Your task to perform on an android device: clear history in the chrome app Image 0: 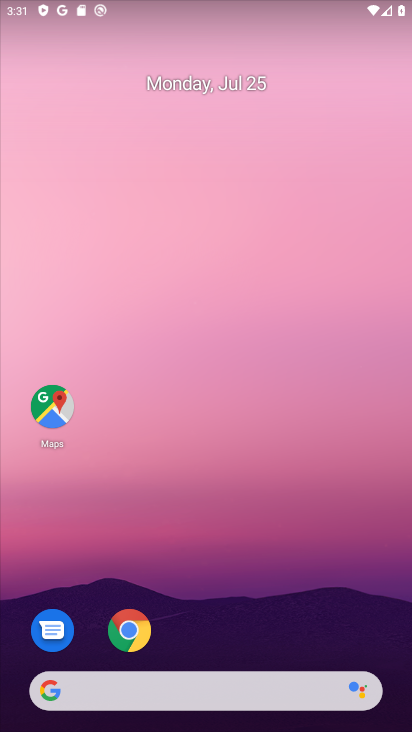
Step 0: click (128, 630)
Your task to perform on an android device: clear history in the chrome app Image 1: 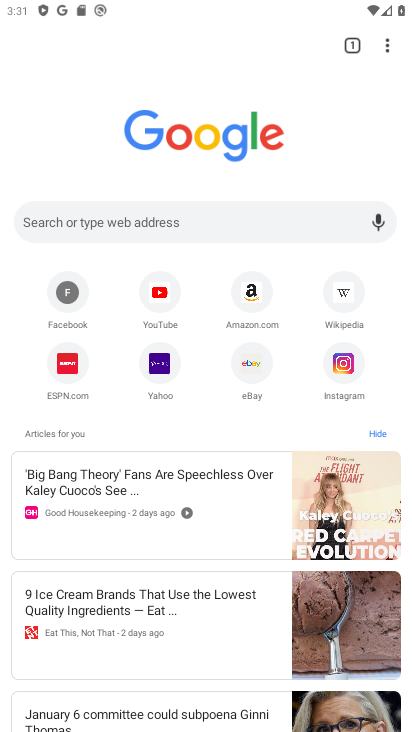
Step 1: click (390, 42)
Your task to perform on an android device: clear history in the chrome app Image 2: 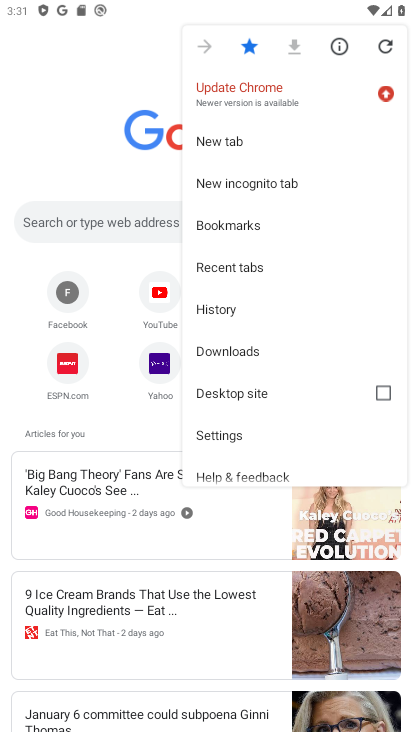
Step 2: click (219, 310)
Your task to perform on an android device: clear history in the chrome app Image 3: 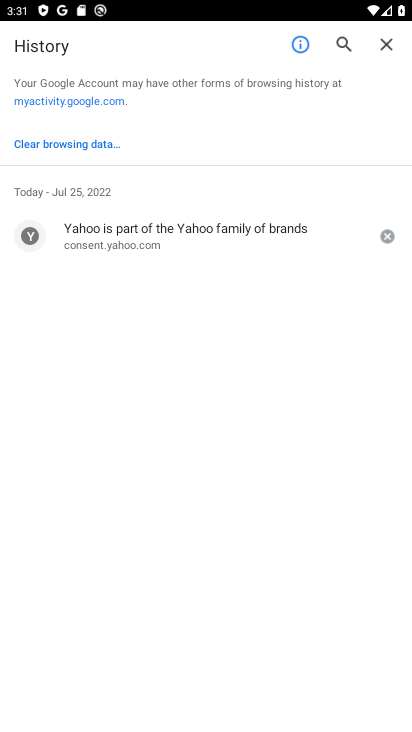
Step 3: click (75, 147)
Your task to perform on an android device: clear history in the chrome app Image 4: 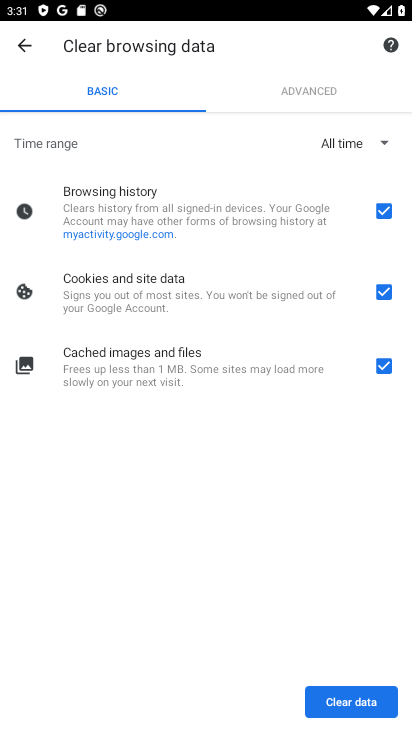
Step 4: click (343, 697)
Your task to perform on an android device: clear history in the chrome app Image 5: 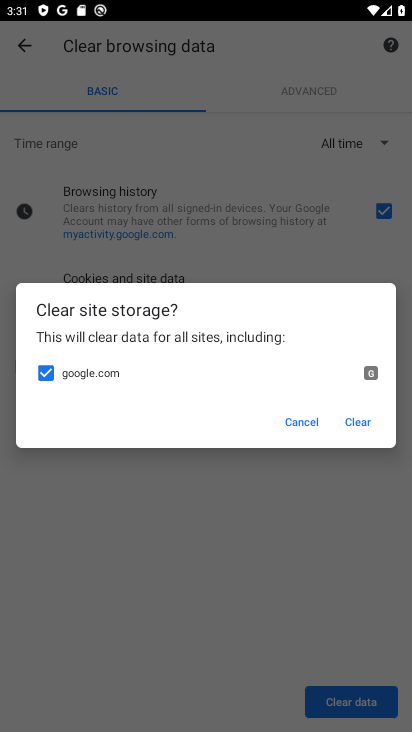
Step 5: click (359, 420)
Your task to perform on an android device: clear history in the chrome app Image 6: 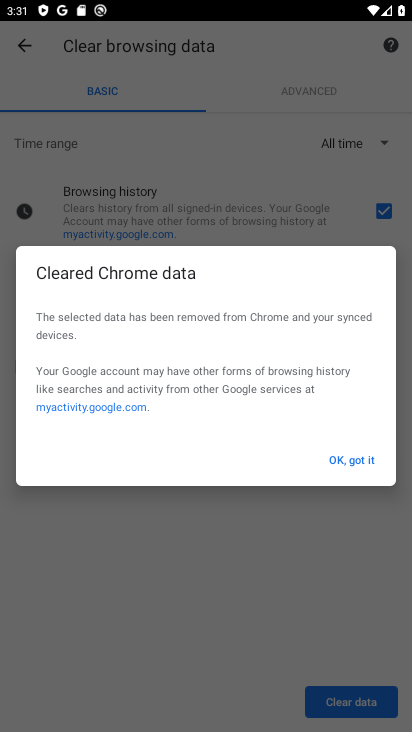
Step 6: click (356, 462)
Your task to perform on an android device: clear history in the chrome app Image 7: 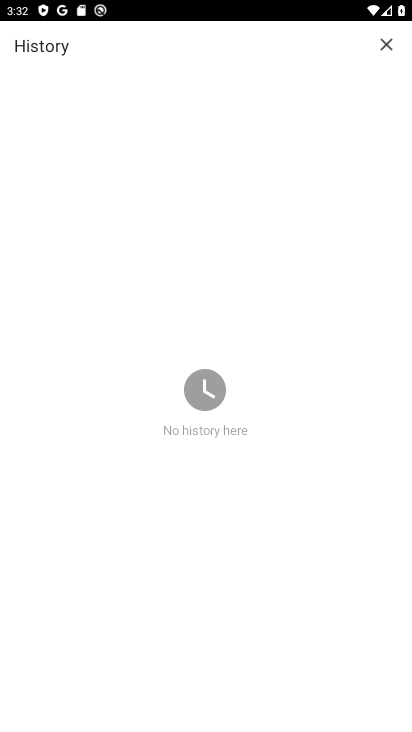
Step 7: task complete